Your task to perform on an android device: Turn off the flashlight Image 0: 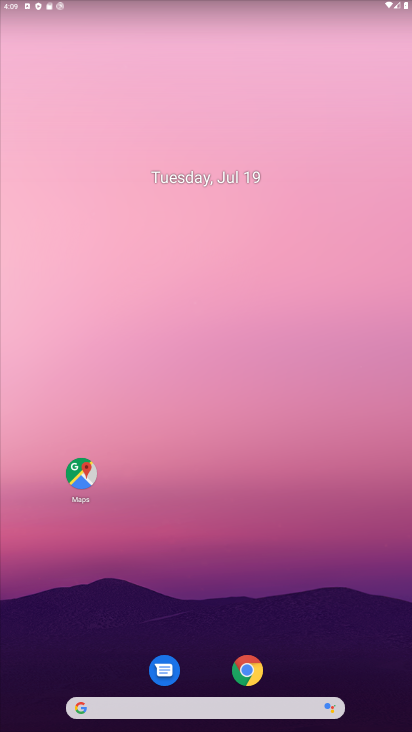
Step 0: drag from (305, 700) to (320, 218)
Your task to perform on an android device: Turn off the flashlight Image 1: 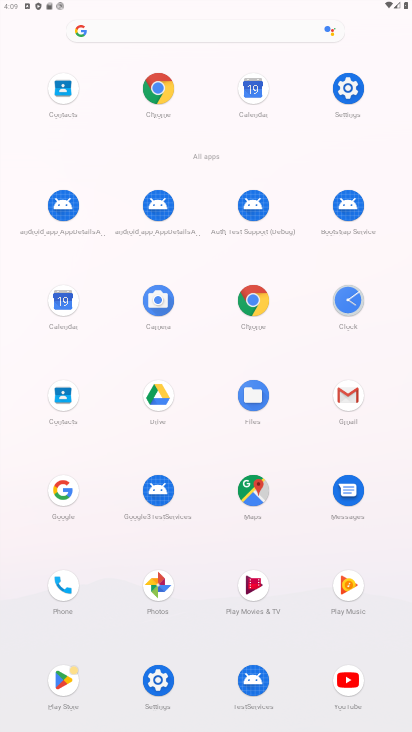
Step 1: task complete